Your task to perform on an android device: open device folders in google photos Image 0: 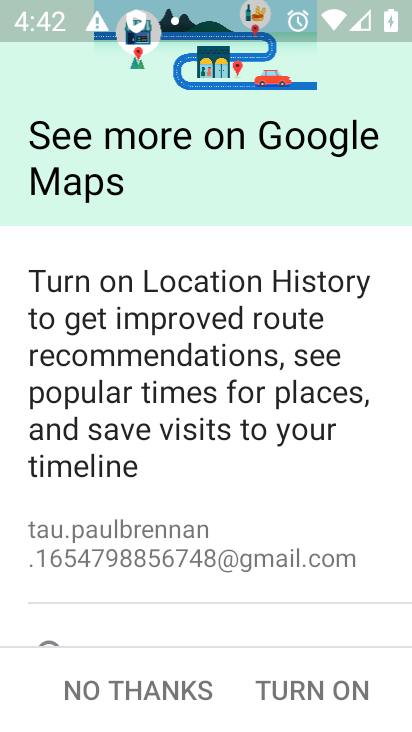
Step 0: press home button
Your task to perform on an android device: open device folders in google photos Image 1: 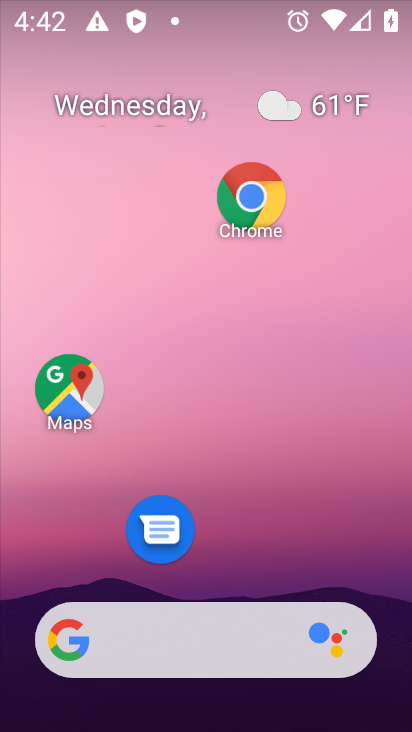
Step 1: drag from (216, 566) to (232, 128)
Your task to perform on an android device: open device folders in google photos Image 2: 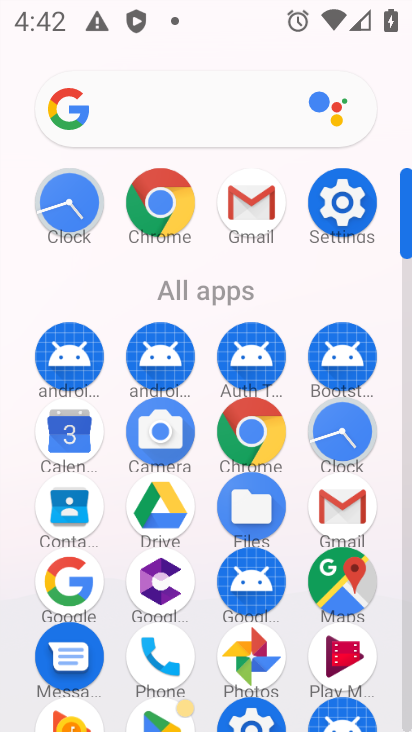
Step 2: drag from (196, 575) to (196, 312)
Your task to perform on an android device: open device folders in google photos Image 3: 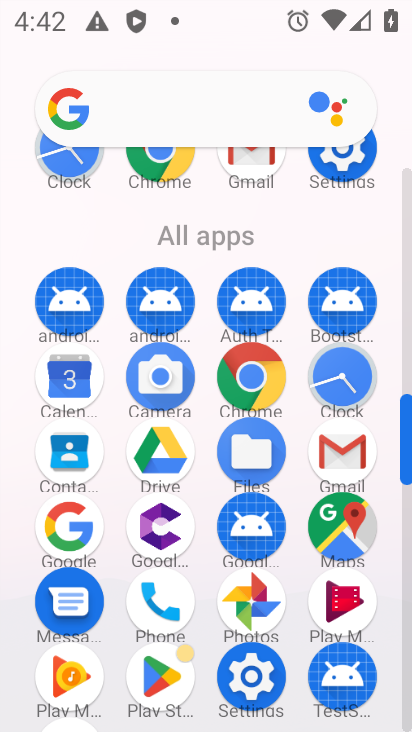
Step 3: click (262, 600)
Your task to perform on an android device: open device folders in google photos Image 4: 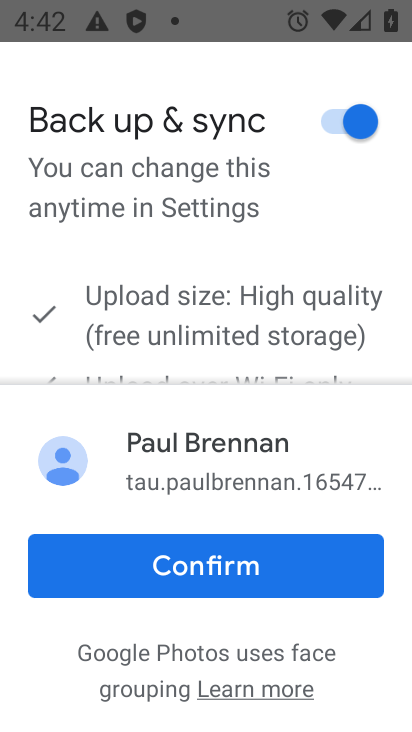
Step 4: click (236, 571)
Your task to perform on an android device: open device folders in google photos Image 5: 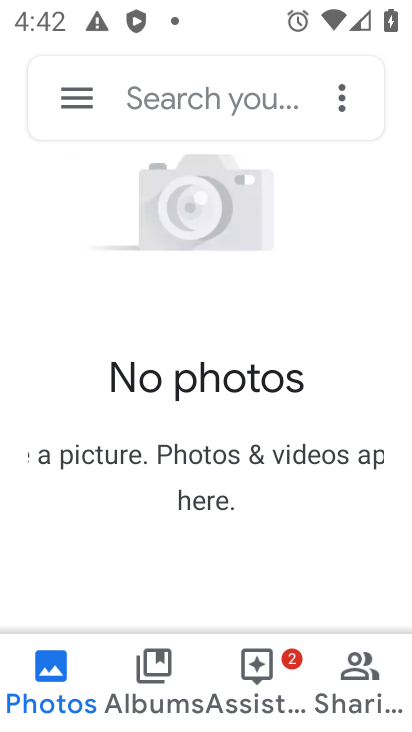
Step 5: click (86, 108)
Your task to perform on an android device: open device folders in google photos Image 6: 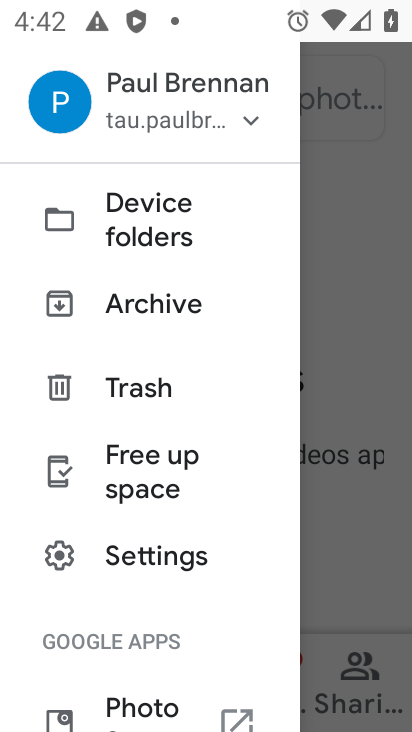
Step 6: click (156, 234)
Your task to perform on an android device: open device folders in google photos Image 7: 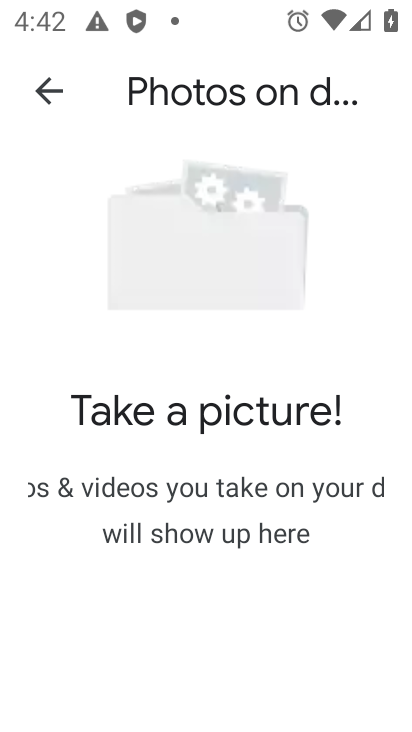
Step 7: task complete